Your task to perform on an android device: choose inbox layout in the gmail app Image 0: 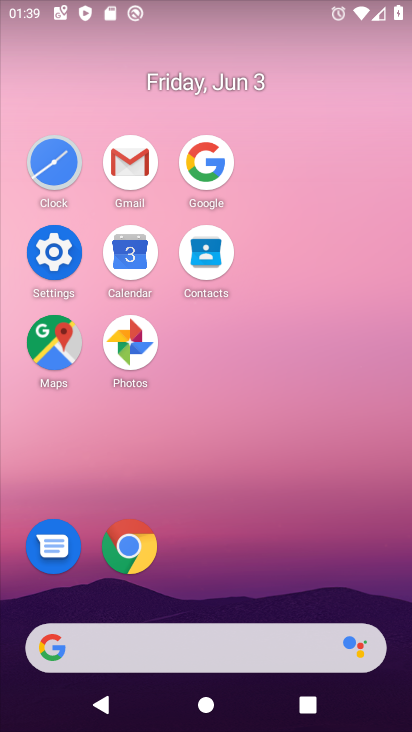
Step 0: click (141, 176)
Your task to perform on an android device: choose inbox layout in the gmail app Image 1: 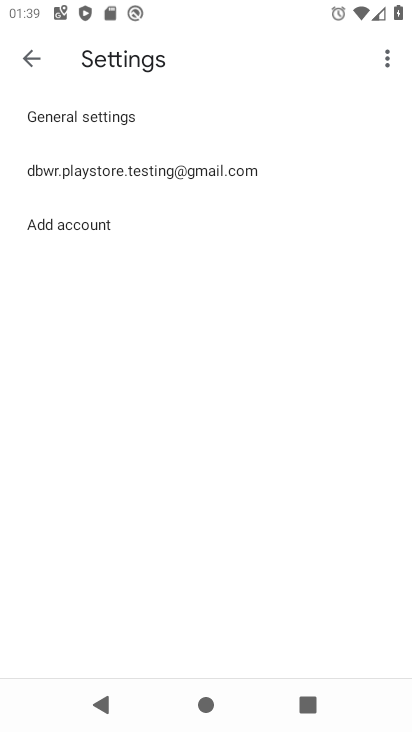
Step 1: click (23, 66)
Your task to perform on an android device: choose inbox layout in the gmail app Image 2: 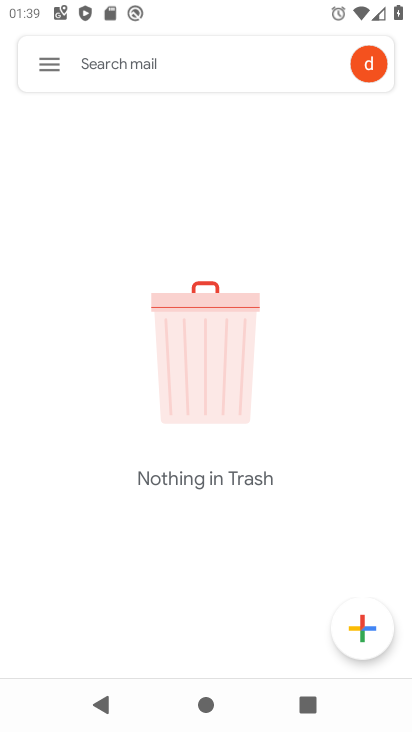
Step 2: click (41, 57)
Your task to perform on an android device: choose inbox layout in the gmail app Image 3: 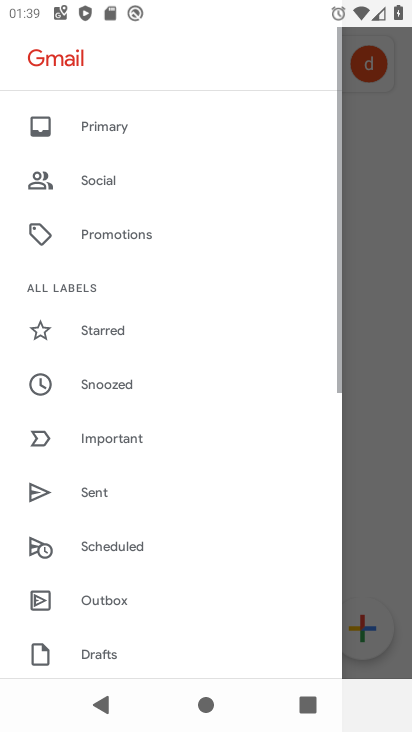
Step 3: drag from (157, 602) to (222, 61)
Your task to perform on an android device: choose inbox layout in the gmail app Image 4: 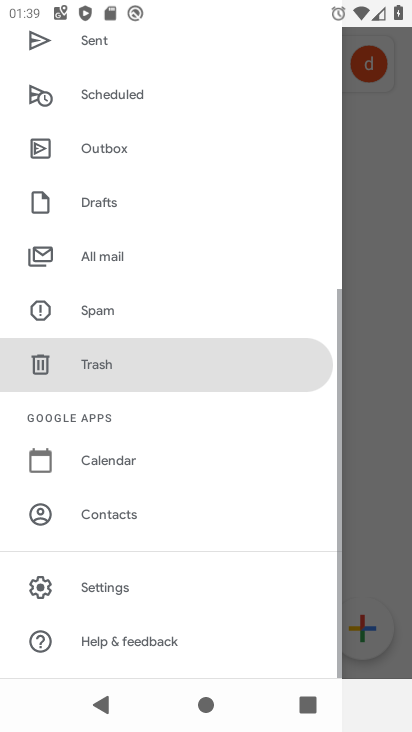
Step 4: click (142, 582)
Your task to perform on an android device: choose inbox layout in the gmail app Image 5: 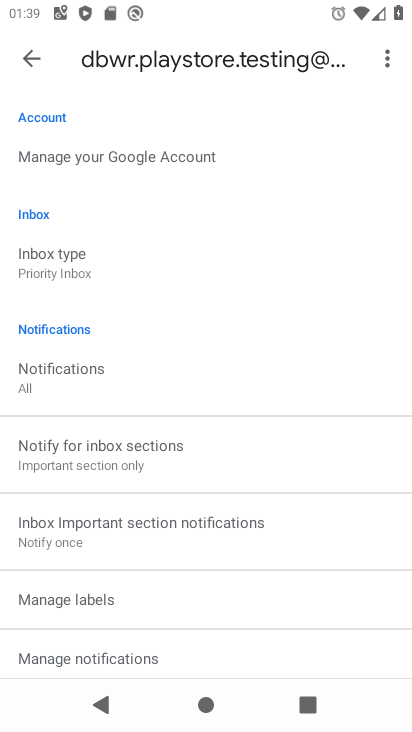
Step 5: click (86, 278)
Your task to perform on an android device: choose inbox layout in the gmail app Image 6: 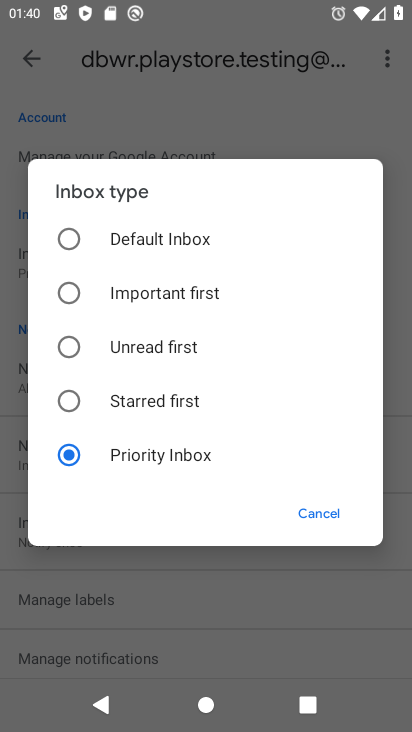
Step 6: task complete